Your task to perform on an android device: turn on showing notifications on the lock screen Image 0: 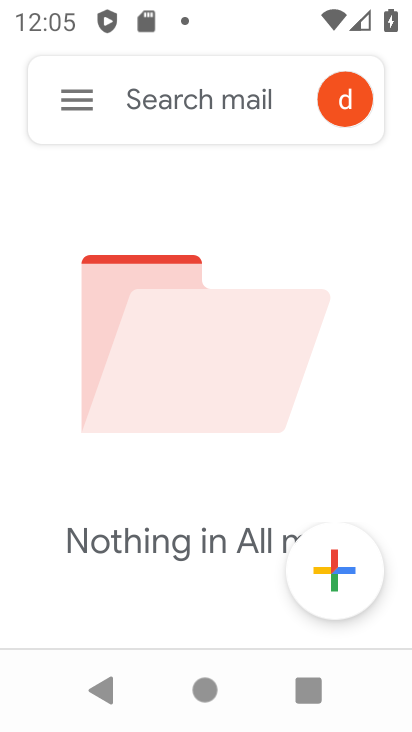
Step 0: press home button
Your task to perform on an android device: turn on showing notifications on the lock screen Image 1: 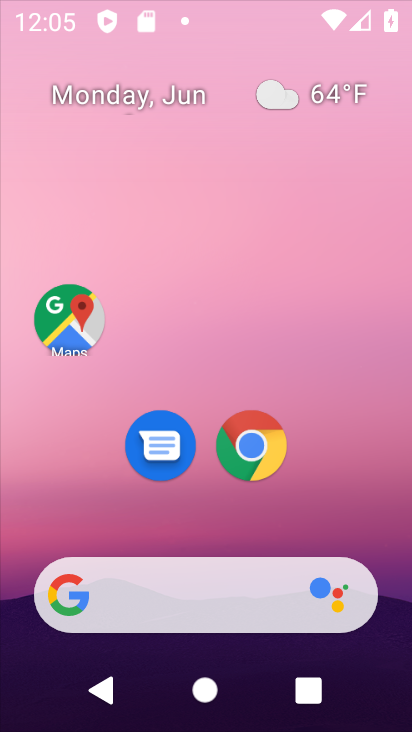
Step 1: drag from (293, 557) to (305, 0)
Your task to perform on an android device: turn on showing notifications on the lock screen Image 2: 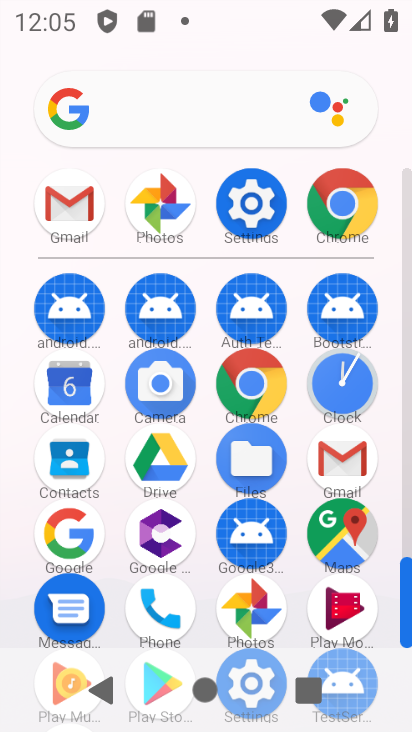
Step 2: click (67, 205)
Your task to perform on an android device: turn on showing notifications on the lock screen Image 3: 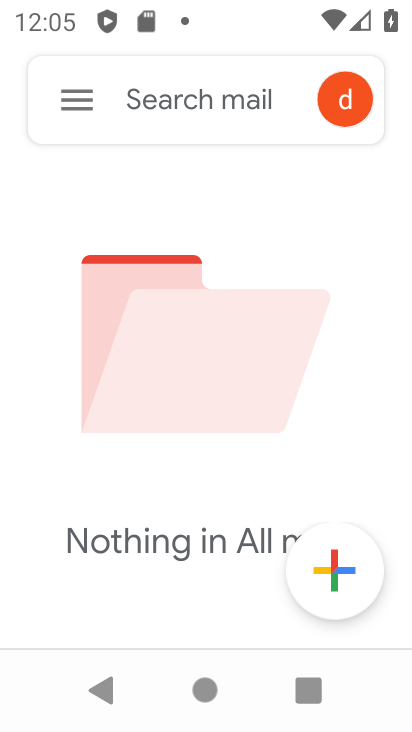
Step 3: press home button
Your task to perform on an android device: turn on showing notifications on the lock screen Image 4: 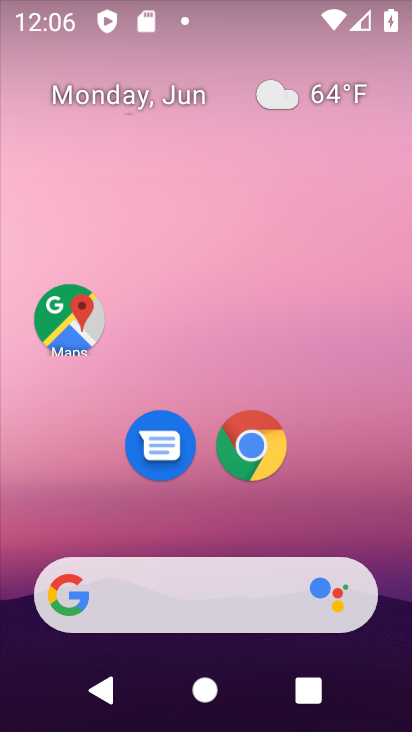
Step 4: drag from (277, 582) to (344, 1)
Your task to perform on an android device: turn on showing notifications on the lock screen Image 5: 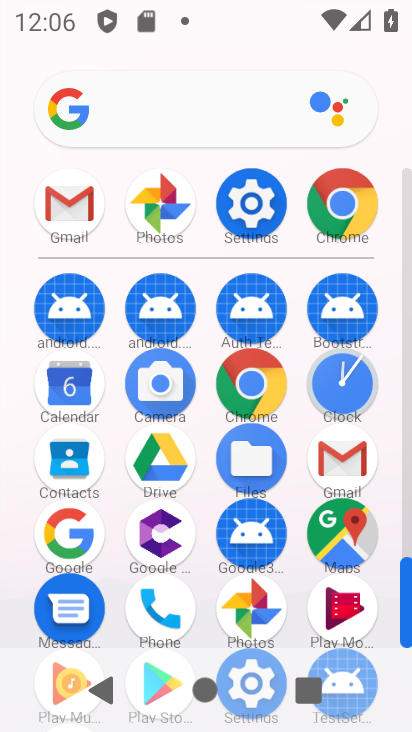
Step 5: click (264, 196)
Your task to perform on an android device: turn on showing notifications on the lock screen Image 6: 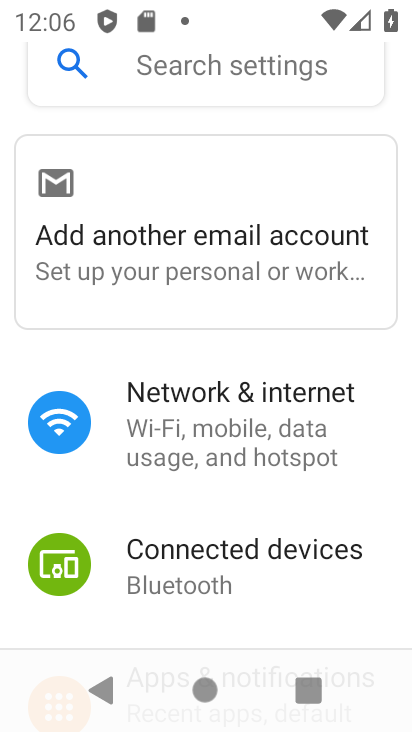
Step 6: click (244, 504)
Your task to perform on an android device: turn on showing notifications on the lock screen Image 7: 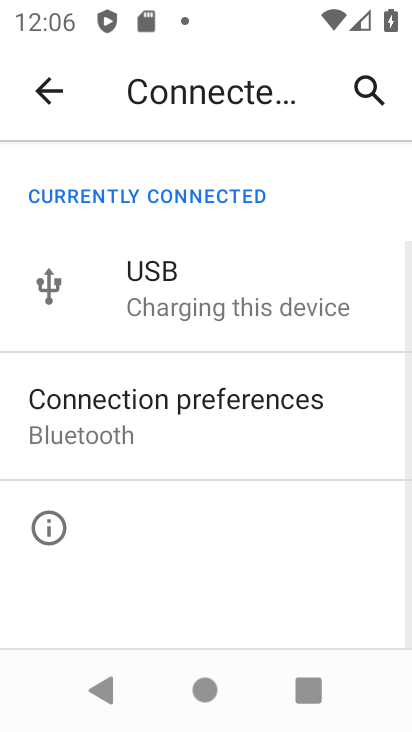
Step 7: press back button
Your task to perform on an android device: turn on showing notifications on the lock screen Image 8: 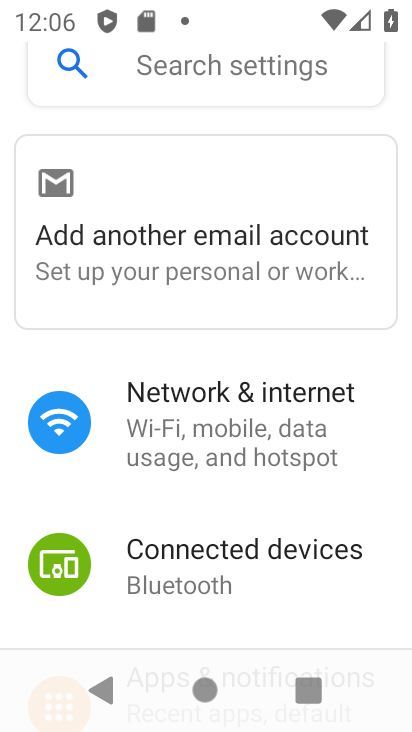
Step 8: drag from (186, 589) to (185, 222)
Your task to perform on an android device: turn on showing notifications on the lock screen Image 9: 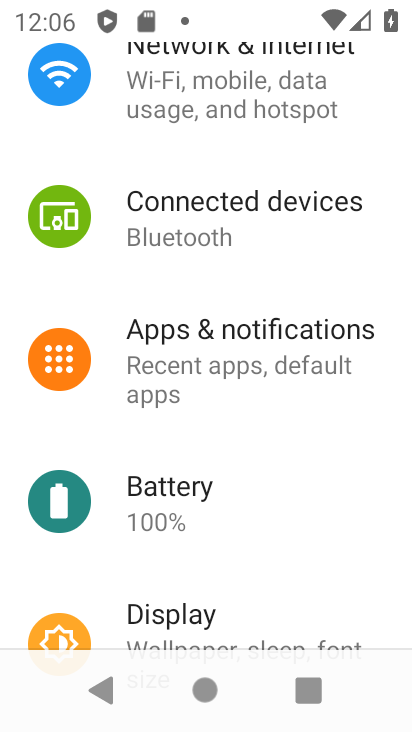
Step 9: click (194, 379)
Your task to perform on an android device: turn on showing notifications on the lock screen Image 10: 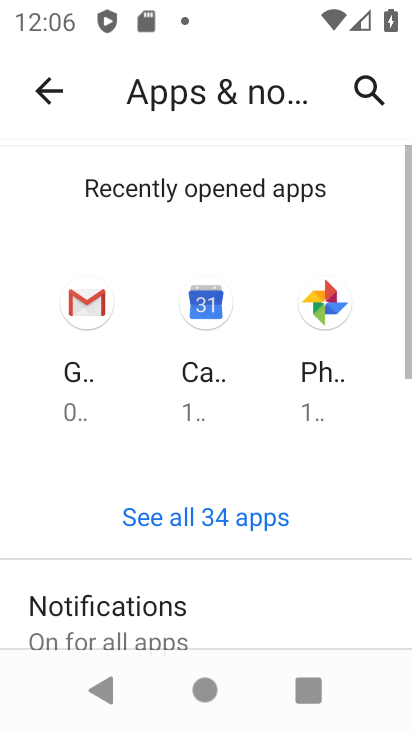
Step 10: drag from (186, 608) to (242, 18)
Your task to perform on an android device: turn on showing notifications on the lock screen Image 11: 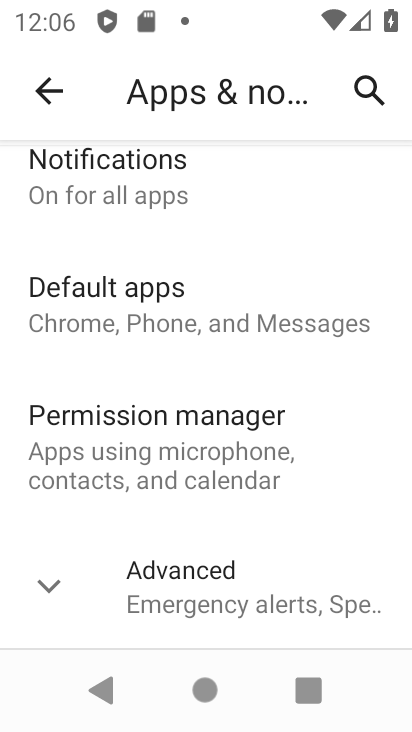
Step 11: click (183, 186)
Your task to perform on an android device: turn on showing notifications on the lock screen Image 12: 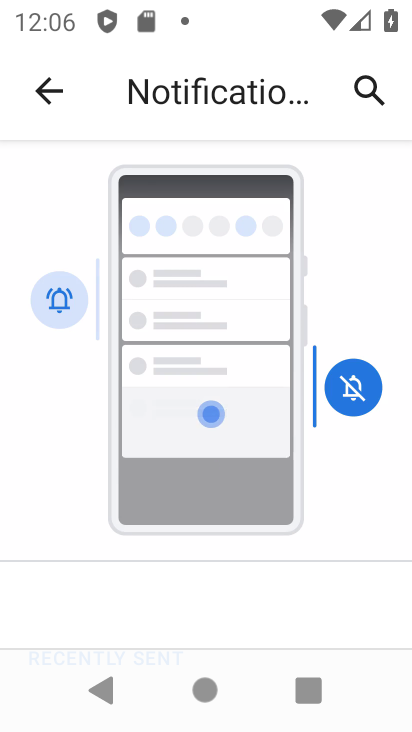
Step 12: drag from (220, 588) to (154, 10)
Your task to perform on an android device: turn on showing notifications on the lock screen Image 13: 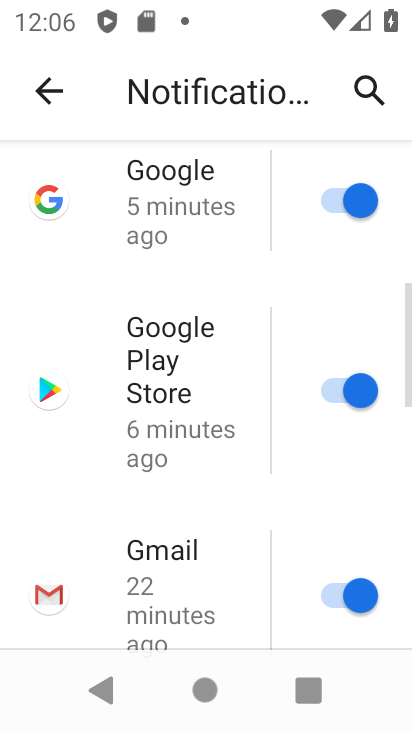
Step 13: drag from (185, 635) to (198, 94)
Your task to perform on an android device: turn on showing notifications on the lock screen Image 14: 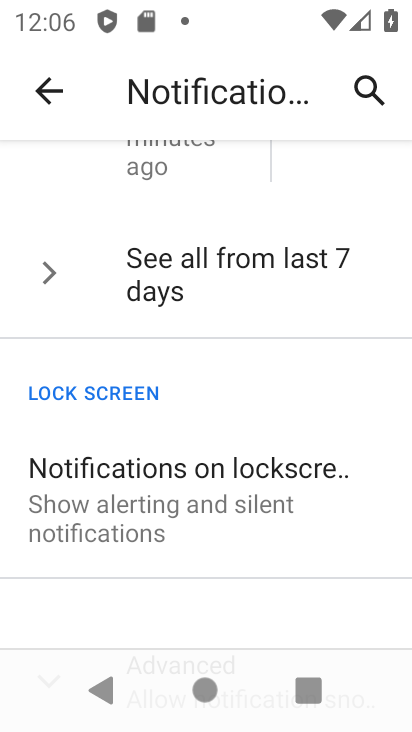
Step 14: click (210, 518)
Your task to perform on an android device: turn on showing notifications on the lock screen Image 15: 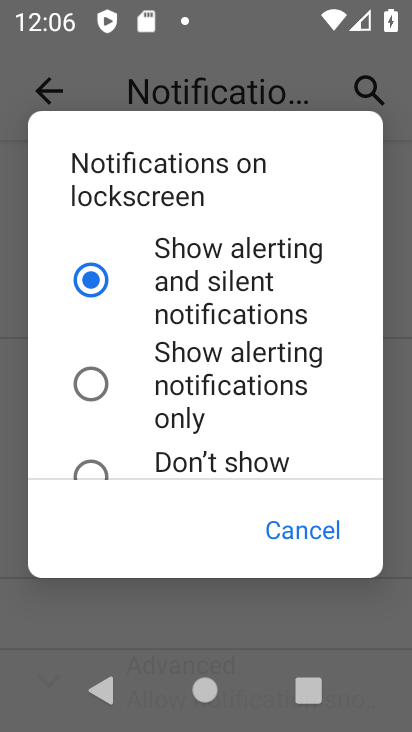
Step 15: task complete